Your task to perform on an android device: turn off data saver in the chrome app Image 0: 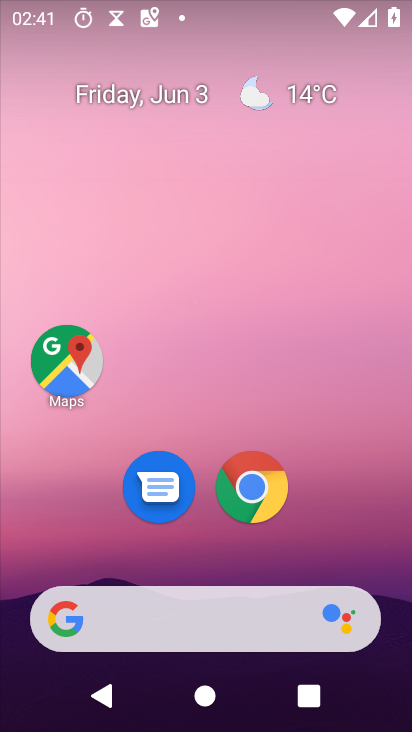
Step 0: click (259, 493)
Your task to perform on an android device: turn off data saver in the chrome app Image 1: 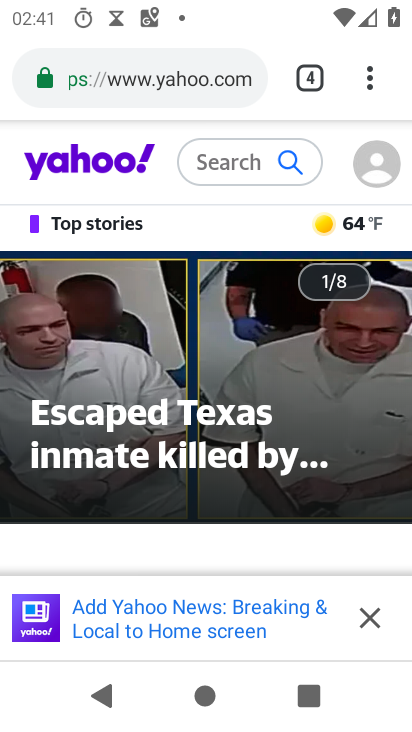
Step 1: click (376, 69)
Your task to perform on an android device: turn off data saver in the chrome app Image 2: 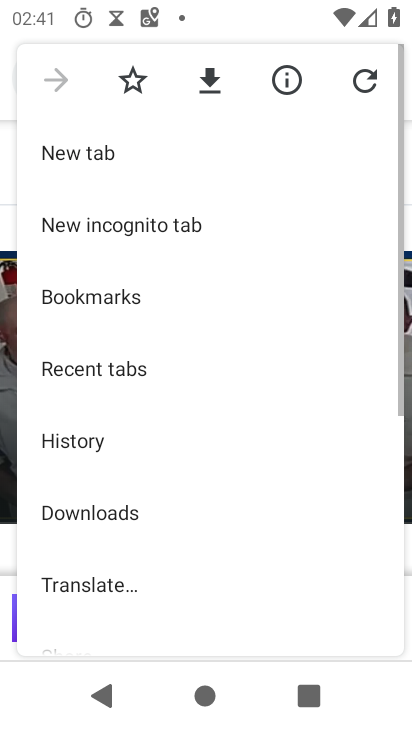
Step 2: drag from (244, 150) to (223, 19)
Your task to perform on an android device: turn off data saver in the chrome app Image 3: 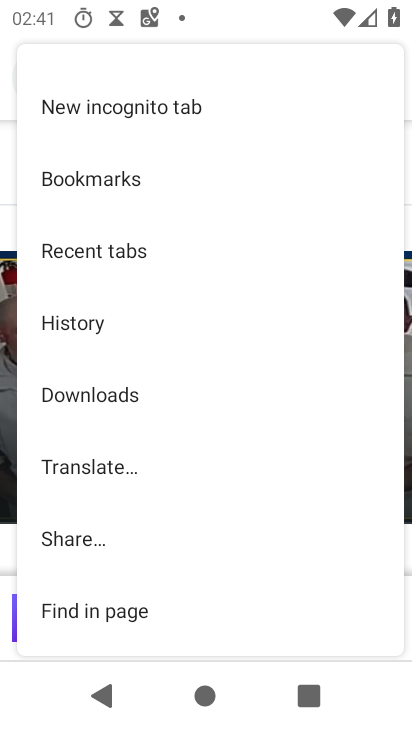
Step 3: drag from (141, 529) to (125, 102)
Your task to perform on an android device: turn off data saver in the chrome app Image 4: 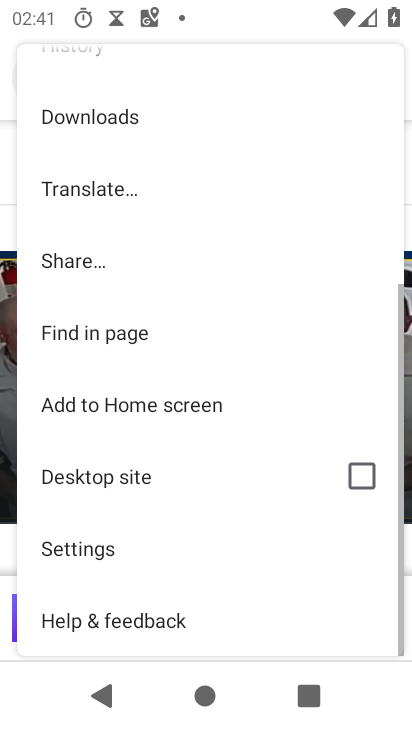
Step 4: click (131, 555)
Your task to perform on an android device: turn off data saver in the chrome app Image 5: 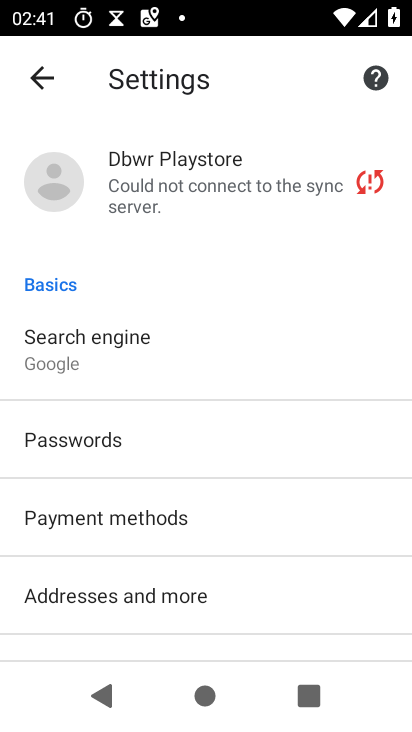
Step 5: drag from (243, 513) to (206, 25)
Your task to perform on an android device: turn off data saver in the chrome app Image 6: 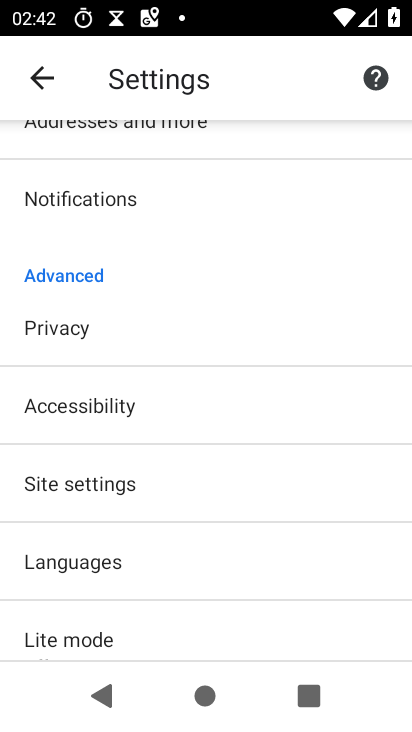
Step 6: click (169, 639)
Your task to perform on an android device: turn off data saver in the chrome app Image 7: 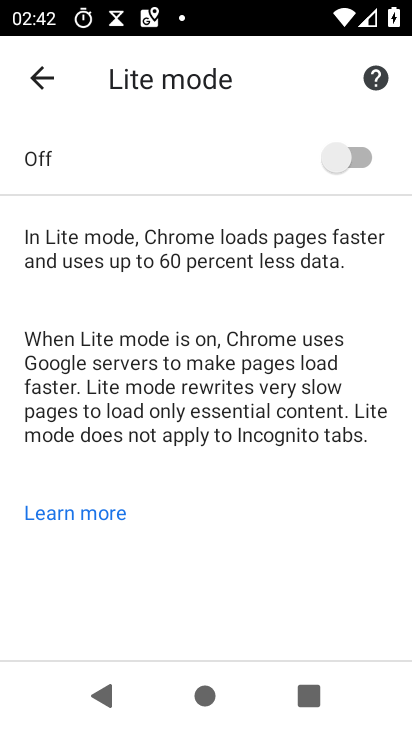
Step 7: task complete